Your task to perform on an android device: Open Android settings Image 0: 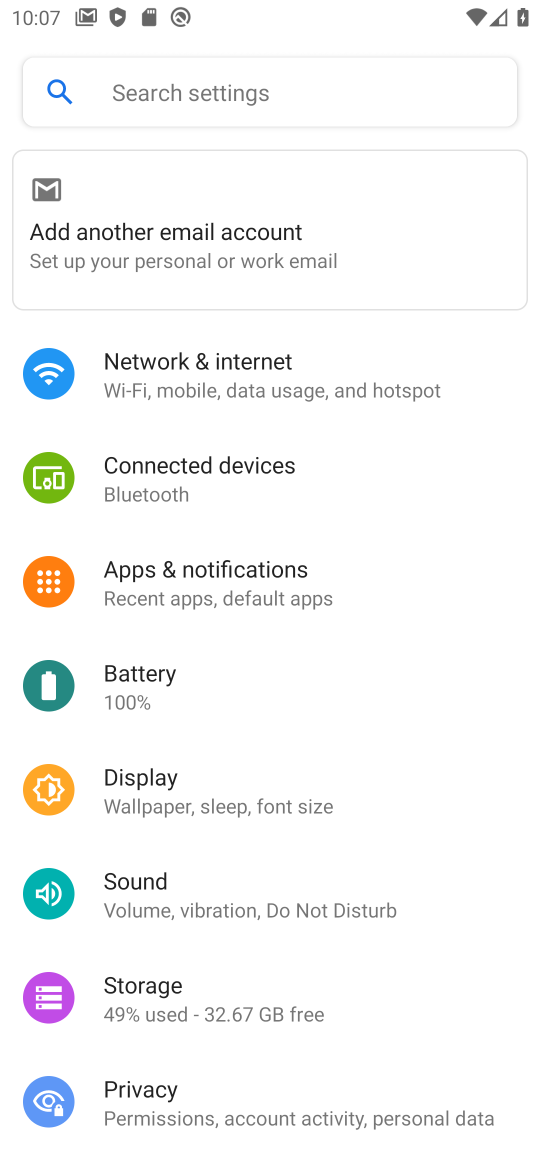
Step 0: drag from (125, 923) to (219, 168)
Your task to perform on an android device: Open Android settings Image 1: 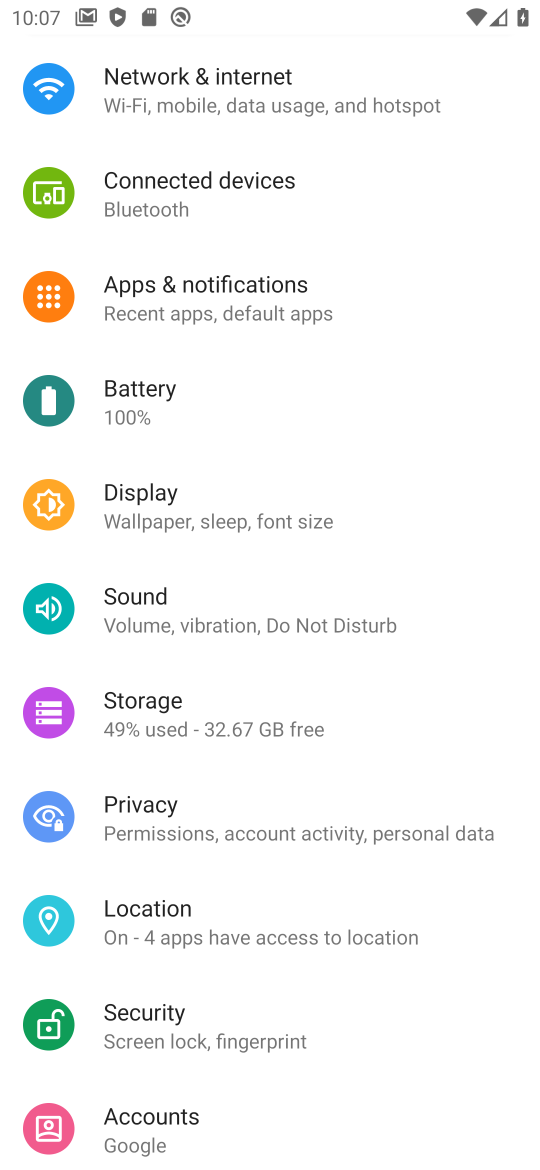
Step 1: task complete